Your task to perform on an android device: Open Google Chrome Image 0: 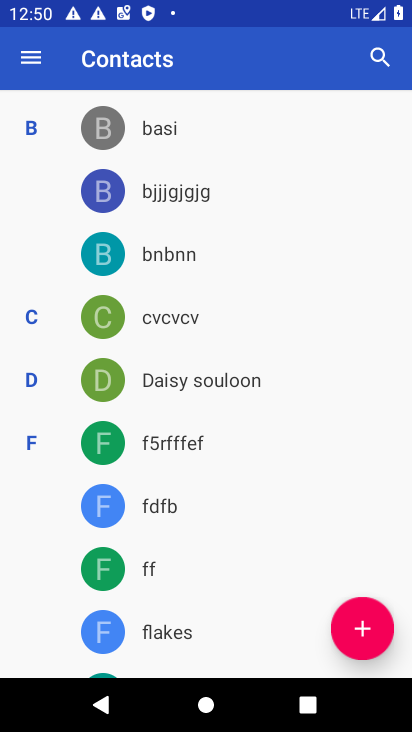
Step 0: press home button
Your task to perform on an android device: Open Google Chrome Image 1: 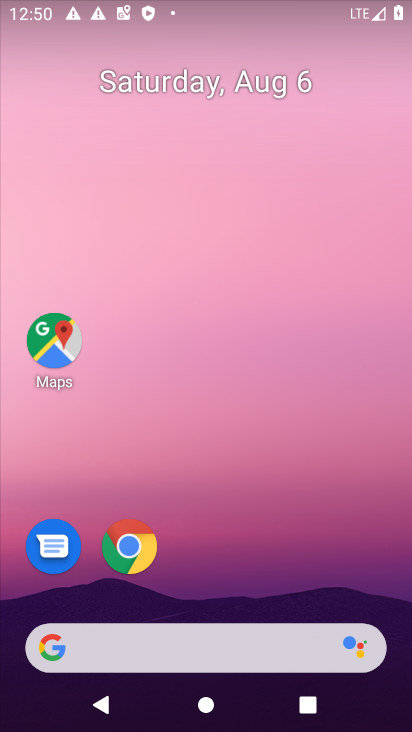
Step 1: click (126, 545)
Your task to perform on an android device: Open Google Chrome Image 2: 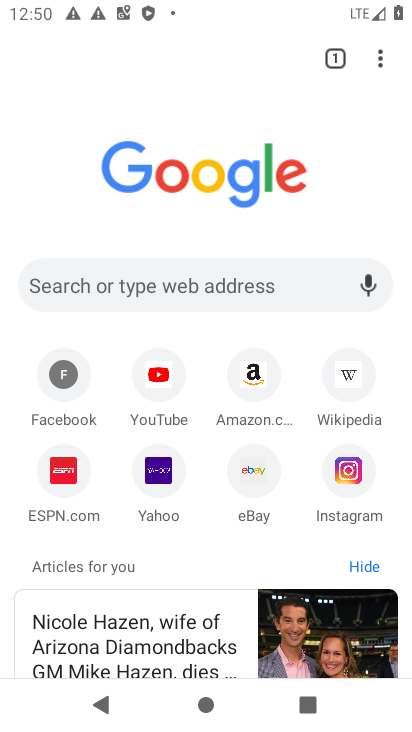
Step 2: task complete